Your task to perform on an android device: add a contact in the contacts app Image 0: 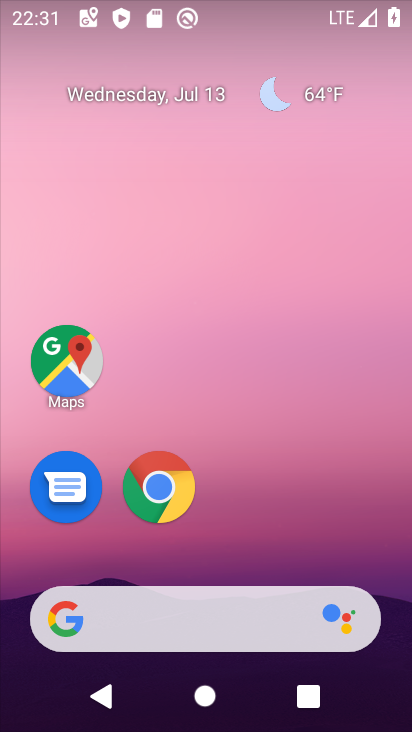
Step 0: drag from (271, 436) to (295, 5)
Your task to perform on an android device: add a contact in the contacts app Image 1: 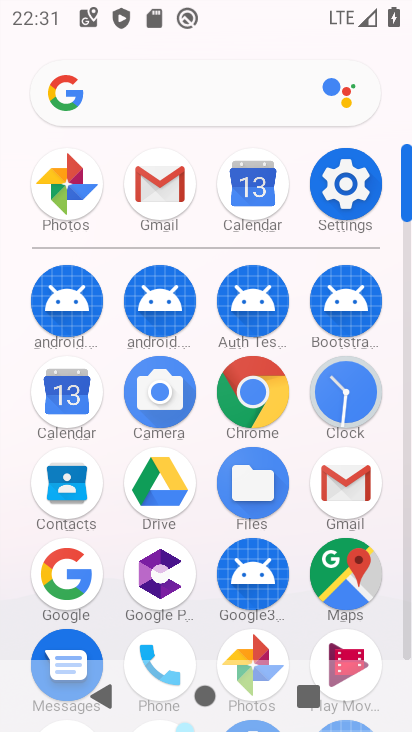
Step 1: click (75, 490)
Your task to perform on an android device: add a contact in the contacts app Image 2: 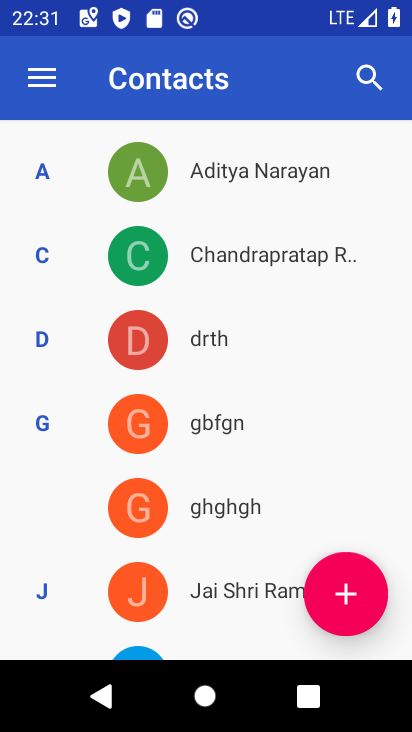
Step 2: click (318, 586)
Your task to perform on an android device: add a contact in the contacts app Image 3: 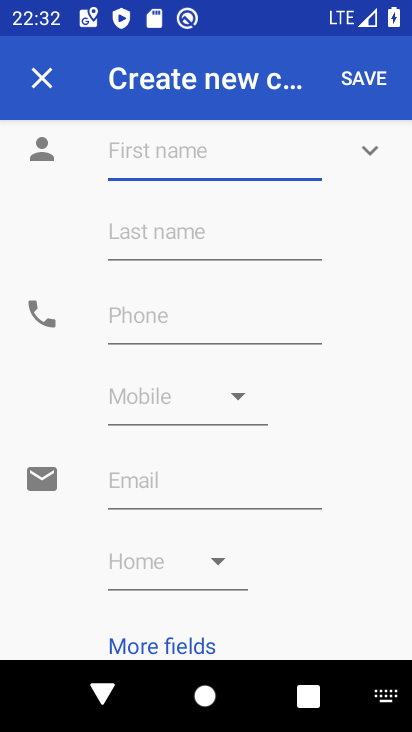
Step 3: type "fgrb"
Your task to perform on an android device: add a contact in the contacts app Image 4: 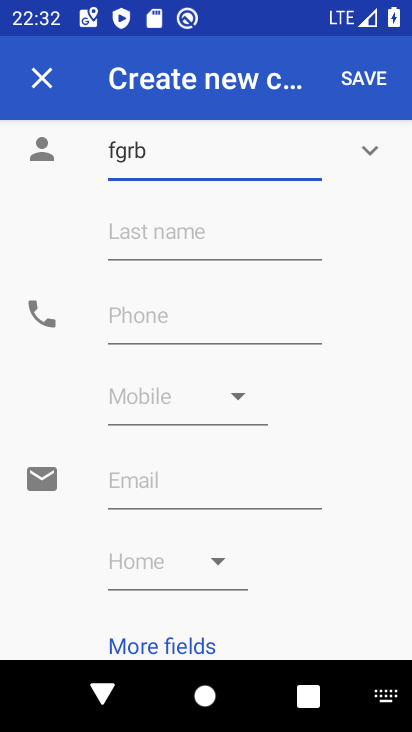
Step 4: click (143, 317)
Your task to perform on an android device: add a contact in the contacts app Image 5: 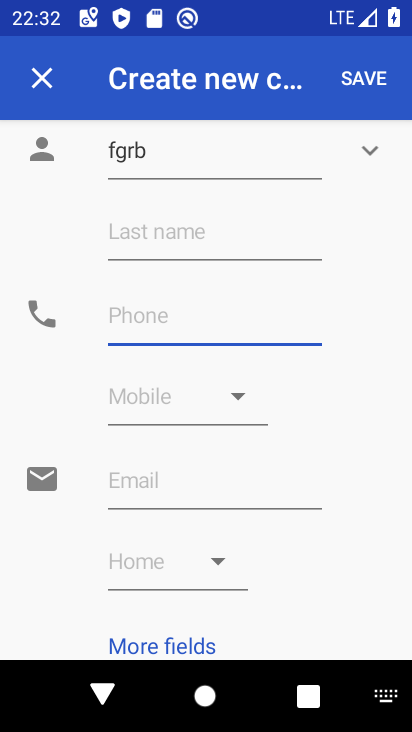
Step 5: type "67657"
Your task to perform on an android device: add a contact in the contacts app Image 6: 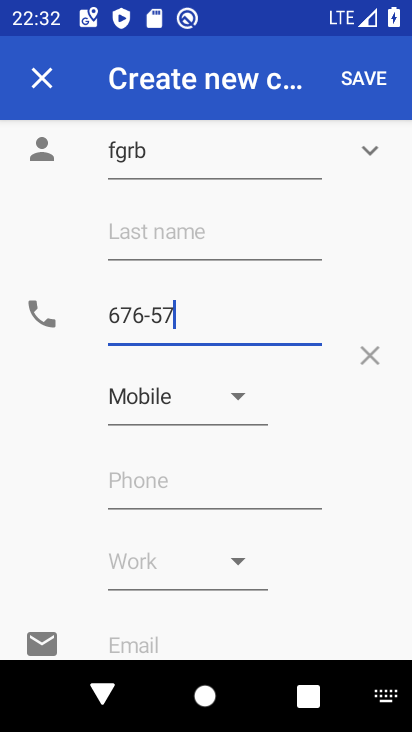
Step 6: click (357, 81)
Your task to perform on an android device: add a contact in the contacts app Image 7: 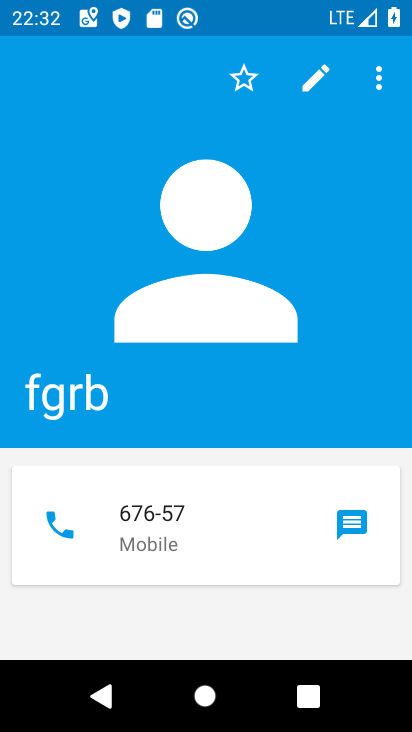
Step 7: task complete